Your task to perform on an android device: Show me popular videos on Youtube Image 0: 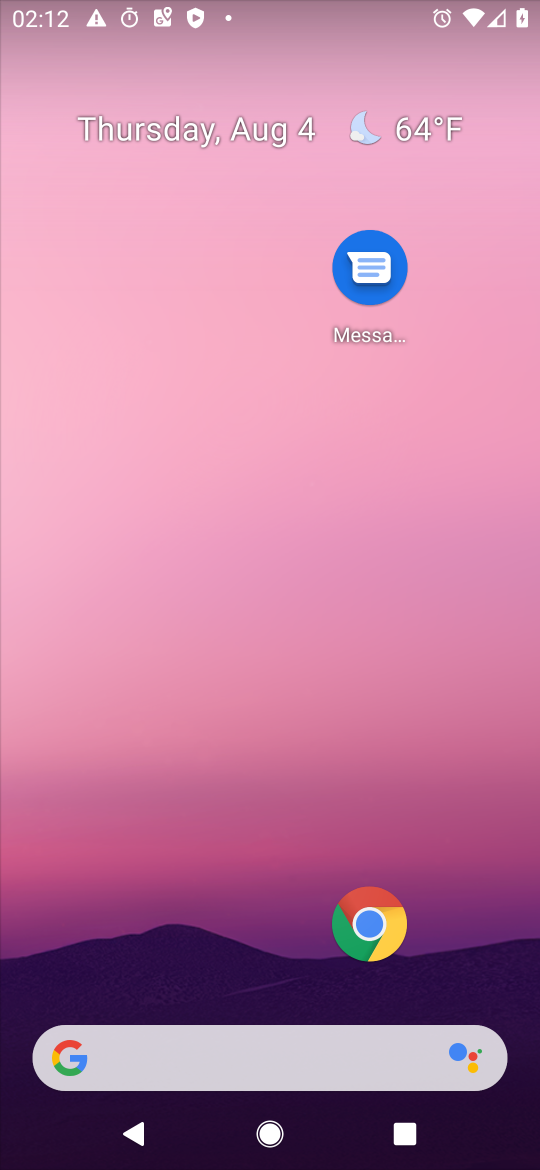
Step 0: drag from (49, 1087) to (451, 136)
Your task to perform on an android device: Show me popular videos on Youtube Image 1: 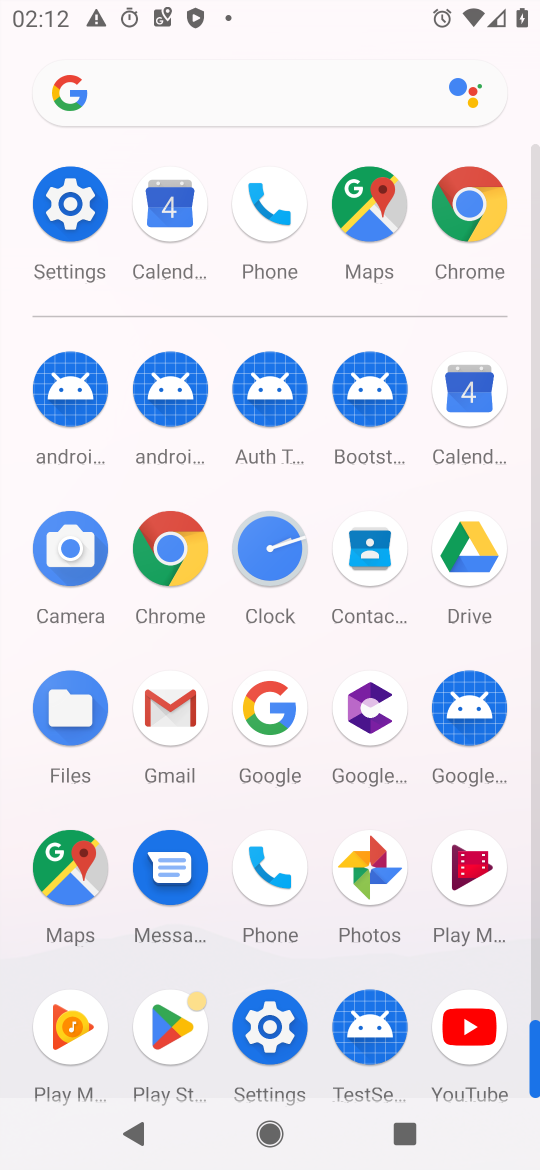
Step 1: drag from (38, 1074) to (339, 39)
Your task to perform on an android device: Show me popular videos on Youtube Image 2: 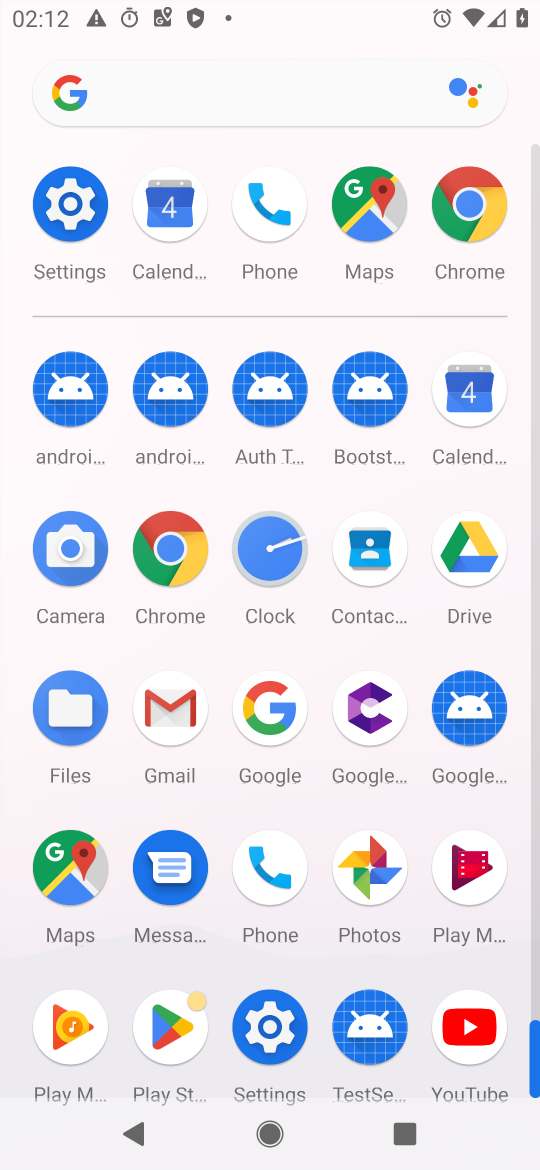
Step 2: click (449, 1019)
Your task to perform on an android device: Show me popular videos on Youtube Image 3: 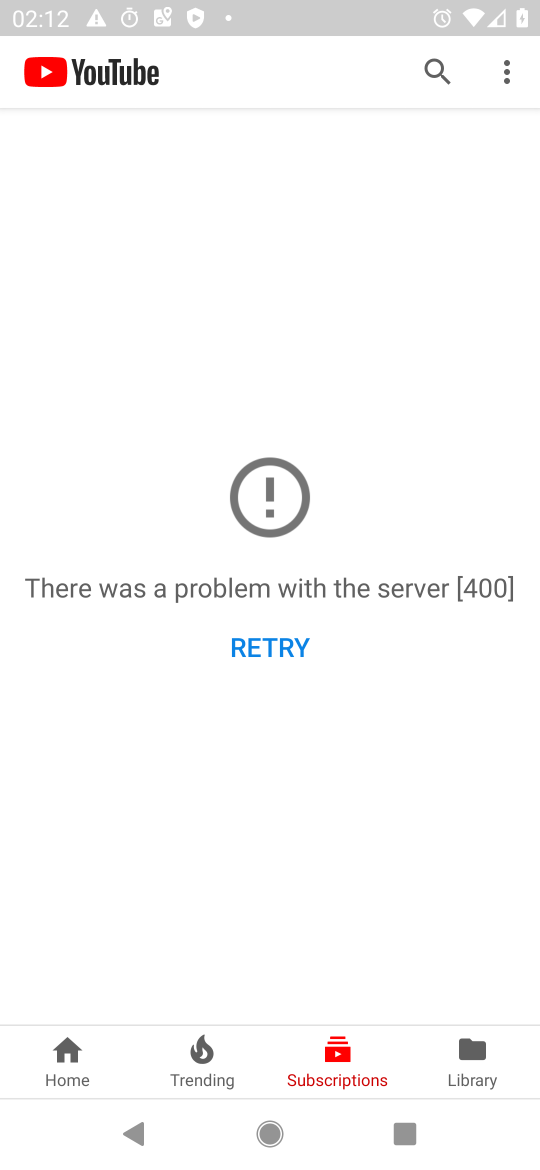
Step 3: click (113, 1066)
Your task to perform on an android device: Show me popular videos on Youtube Image 4: 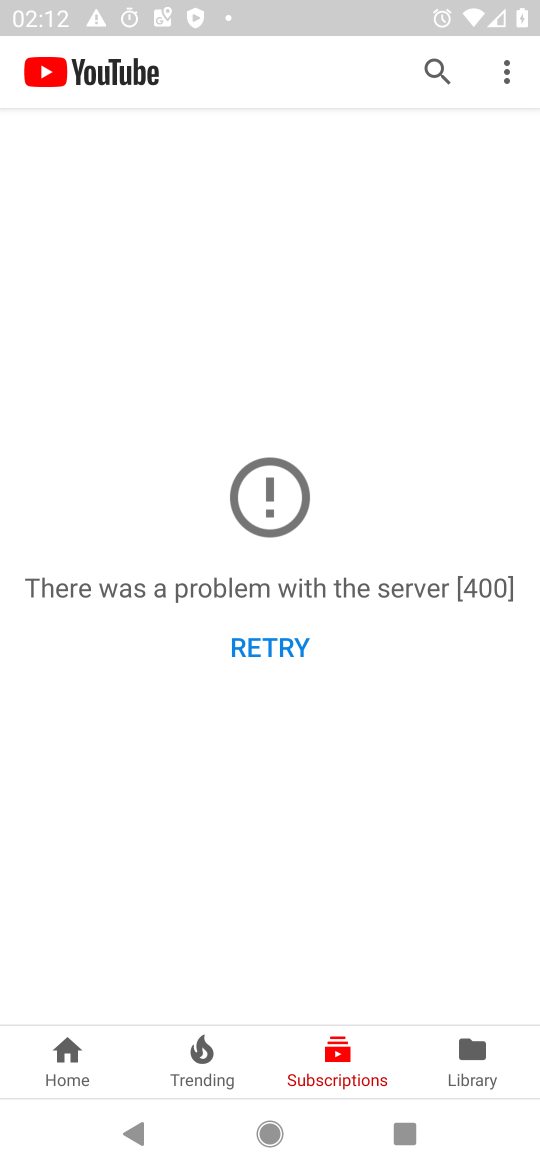
Step 4: click (61, 1063)
Your task to perform on an android device: Show me popular videos on Youtube Image 5: 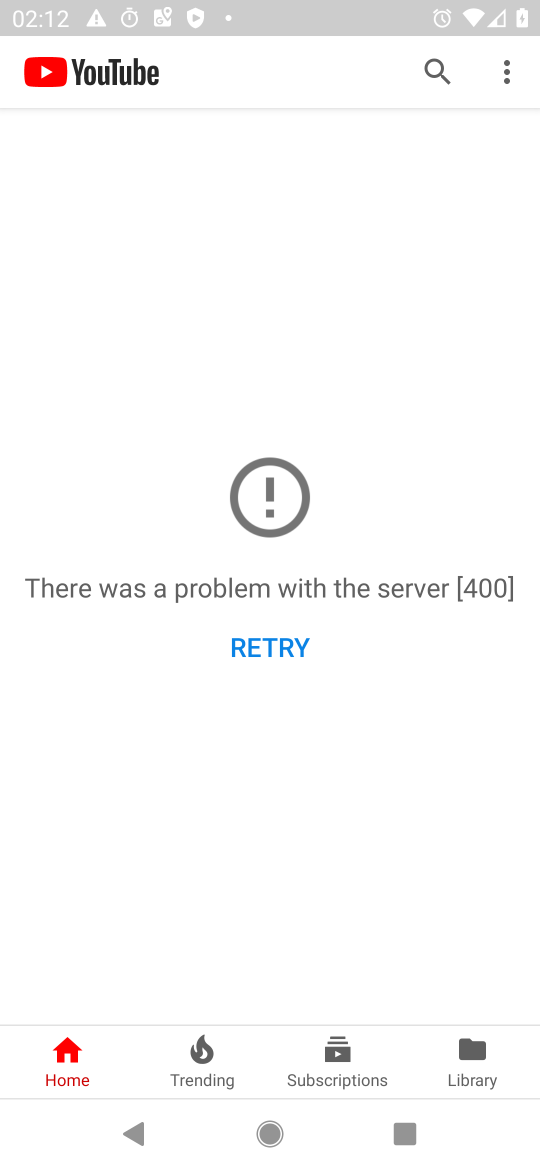
Step 5: drag from (391, 24) to (475, 620)
Your task to perform on an android device: Show me popular videos on Youtube Image 6: 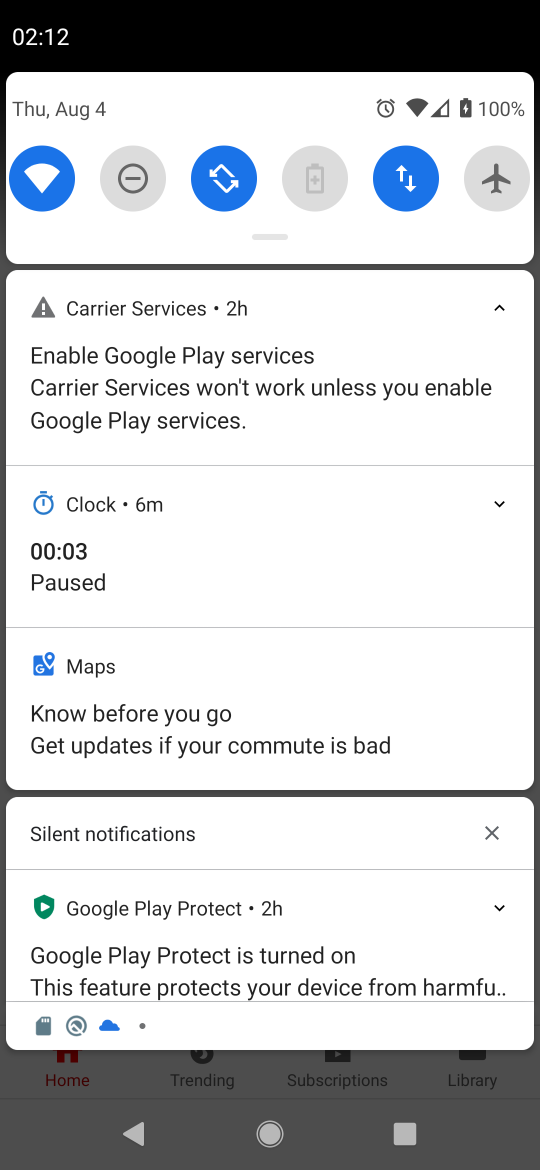
Step 6: click (353, 1087)
Your task to perform on an android device: Show me popular videos on Youtube Image 7: 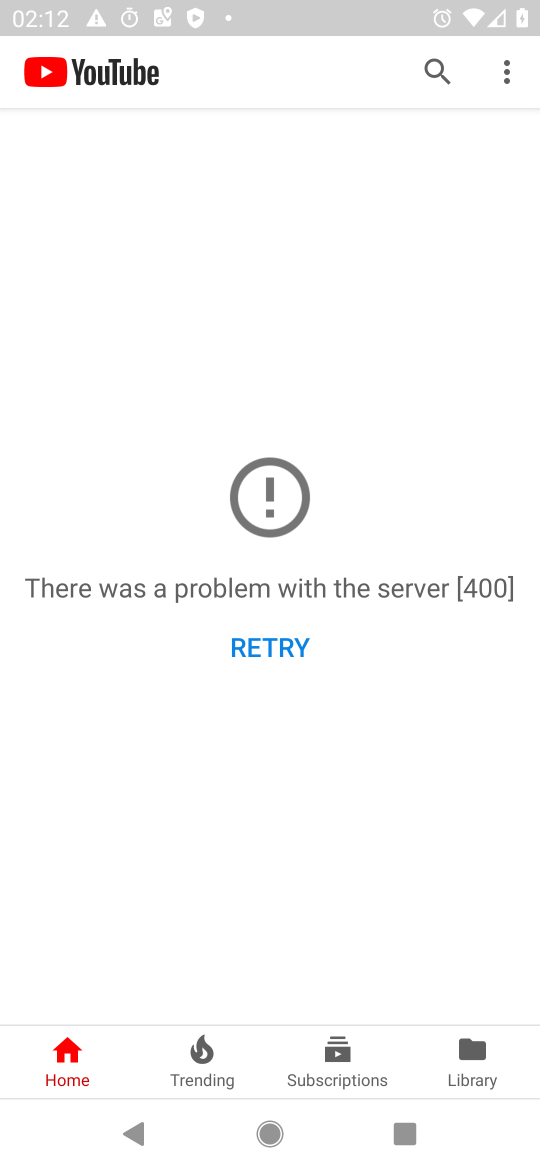
Step 7: task complete